Your task to perform on an android device: Go to privacy settings Image 0: 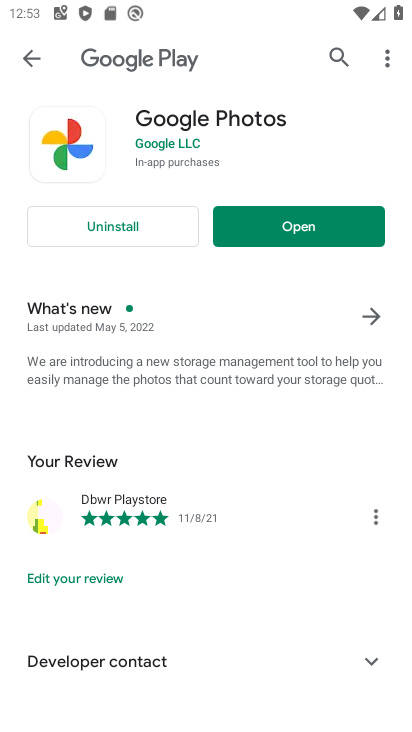
Step 0: press home button
Your task to perform on an android device: Go to privacy settings Image 1: 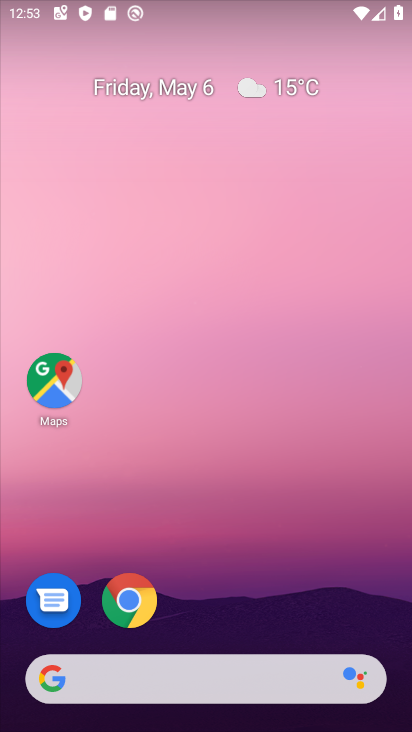
Step 1: drag from (321, 614) to (276, 85)
Your task to perform on an android device: Go to privacy settings Image 2: 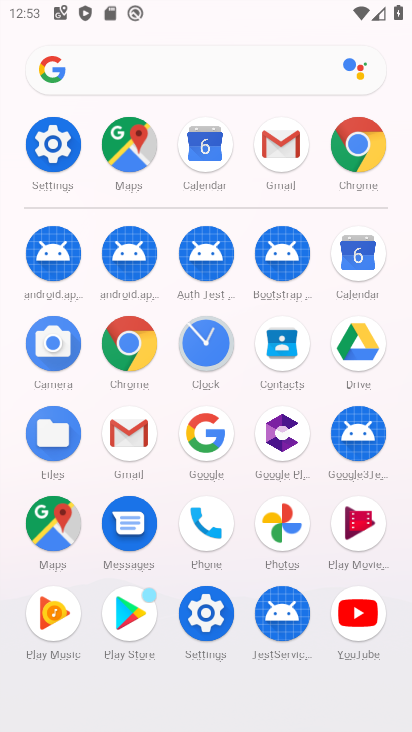
Step 2: click (205, 625)
Your task to perform on an android device: Go to privacy settings Image 3: 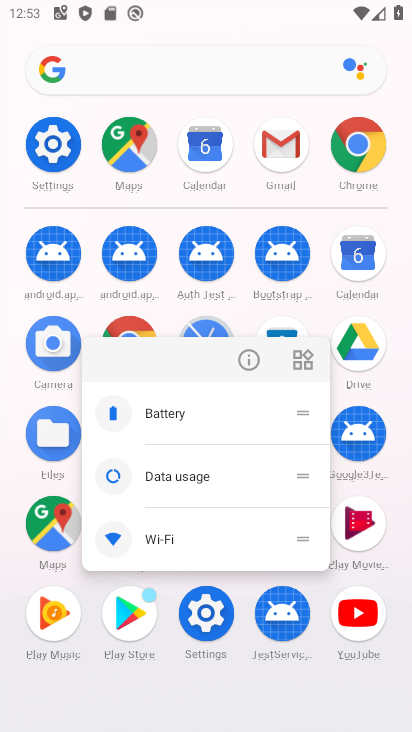
Step 3: click (205, 625)
Your task to perform on an android device: Go to privacy settings Image 4: 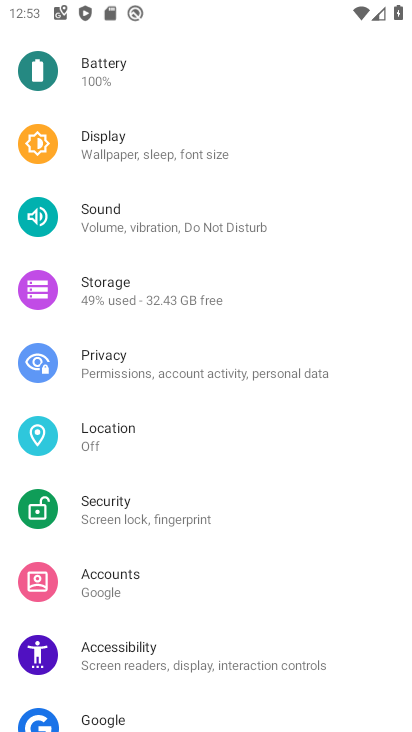
Step 4: click (168, 368)
Your task to perform on an android device: Go to privacy settings Image 5: 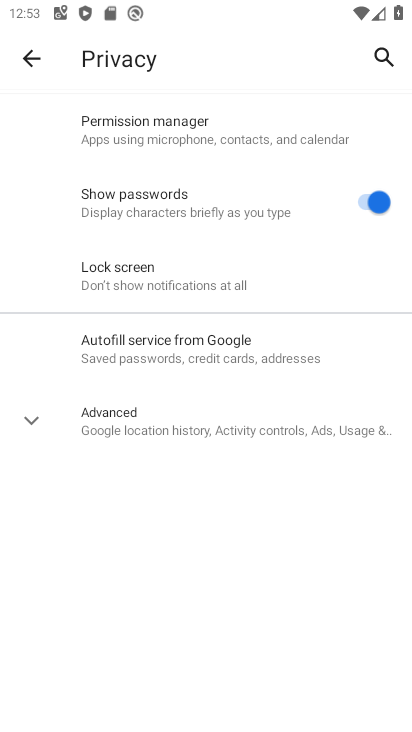
Step 5: task complete